Your task to perform on an android device: open a new tab in the chrome app Image 0: 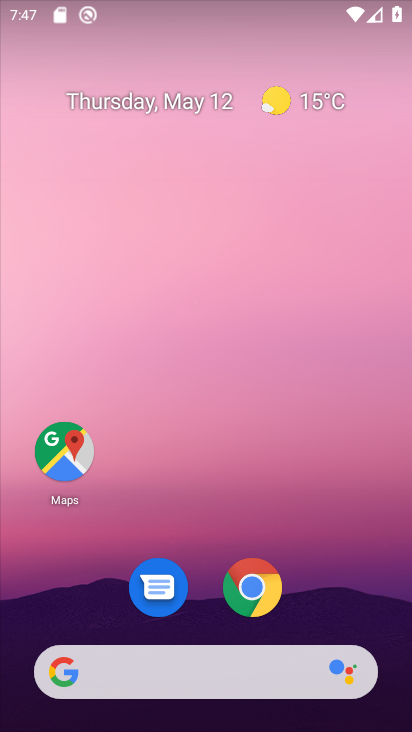
Step 0: drag from (345, 601) to (268, 256)
Your task to perform on an android device: open a new tab in the chrome app Image 1: 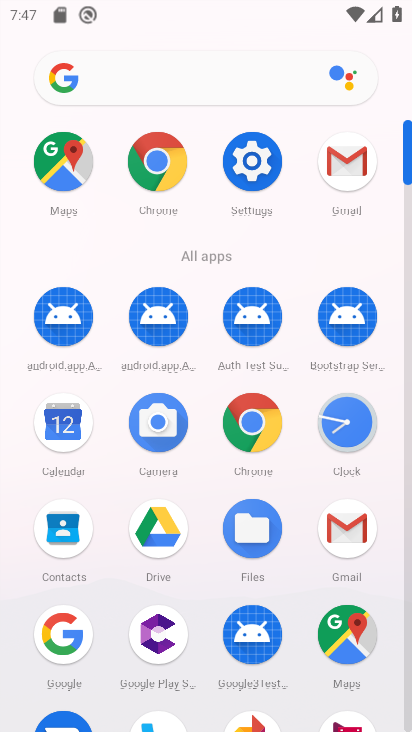
Step 1: click (265, 443)
Your task to perform on an android device: open a new tab in the chrome app Image 2: 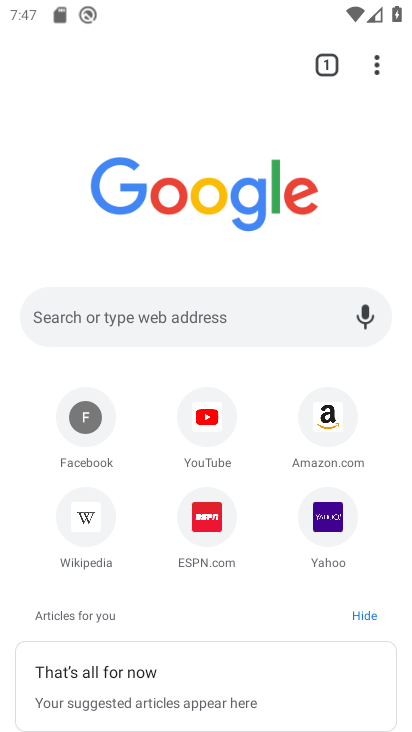
Step 2: click (376, 59)
Your task to perform on an android device: open a new tab in the chrome app Image 3: 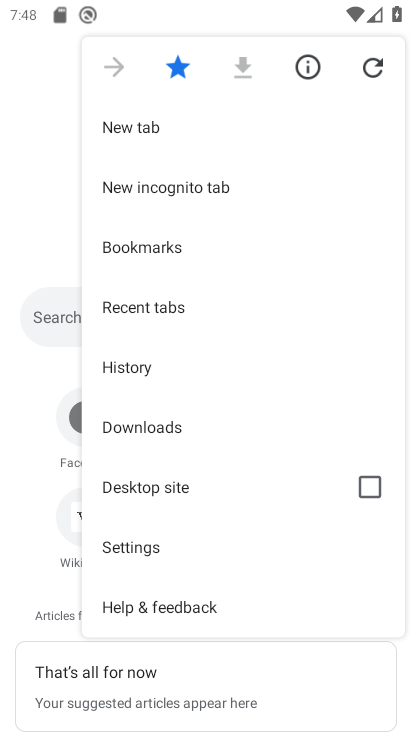
Step 3: click (281, 127)
Your task to perform on an android device: open a new tab in the chrome app Image 4: 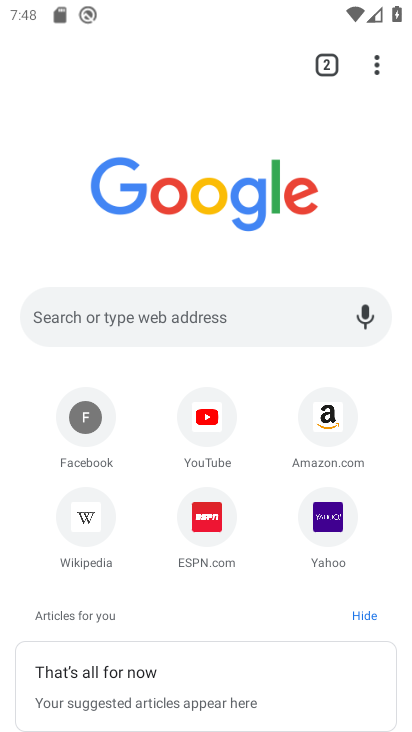
Step 4: task complete